Your task to perform on an android device: Open battery settings Image 0: 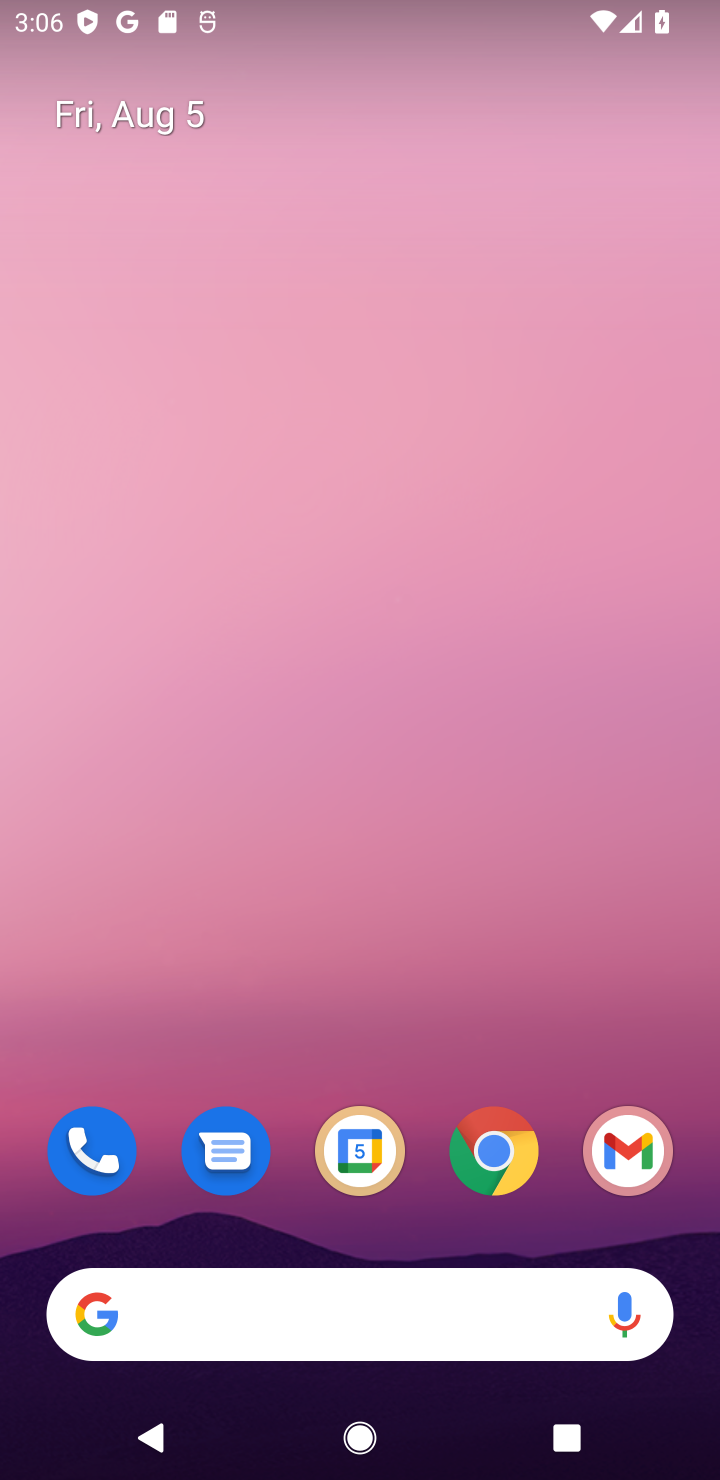
Step 0: drag from (387, 1048) to (343, 5)
Your task to perform on an android device: Open battery settings Image 1: 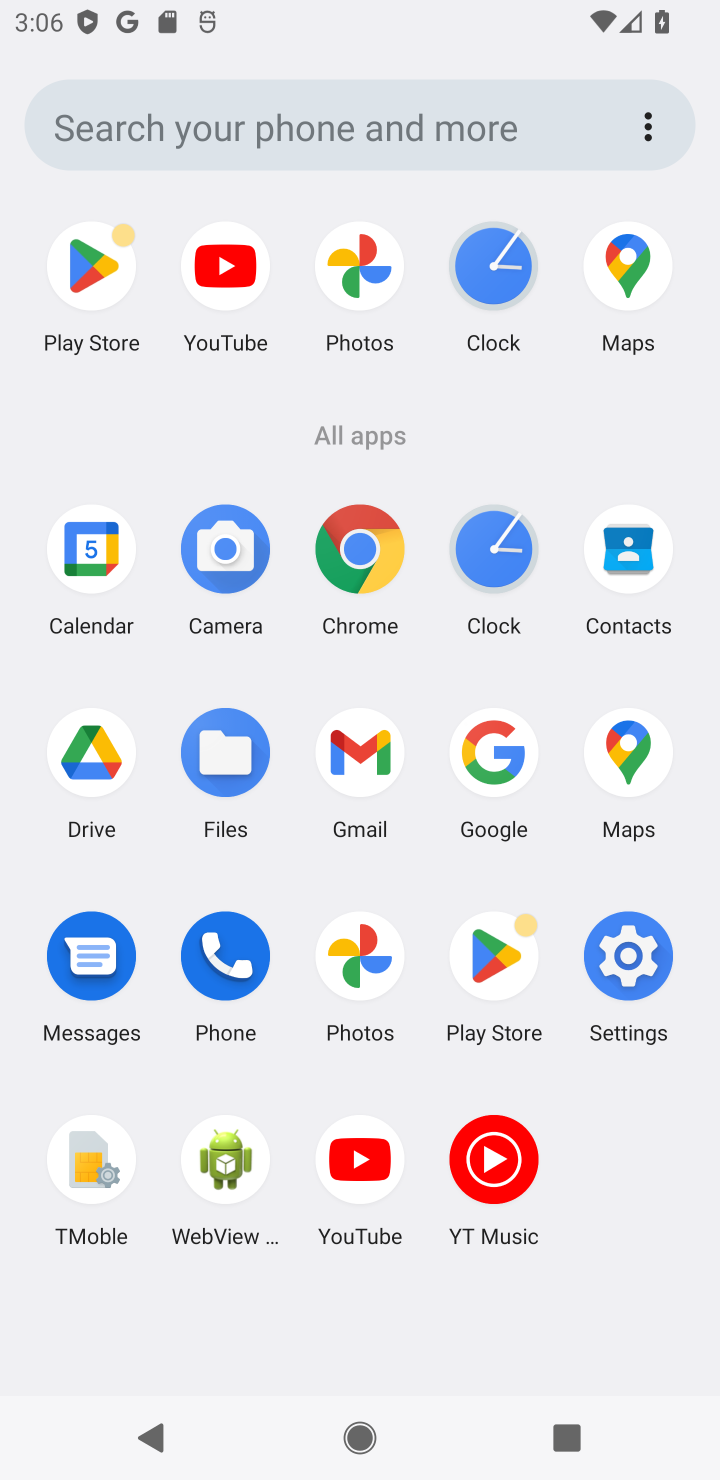
Step 1: click (626, 931)
Your task to perform on an android device: Open battery settings Image 2: 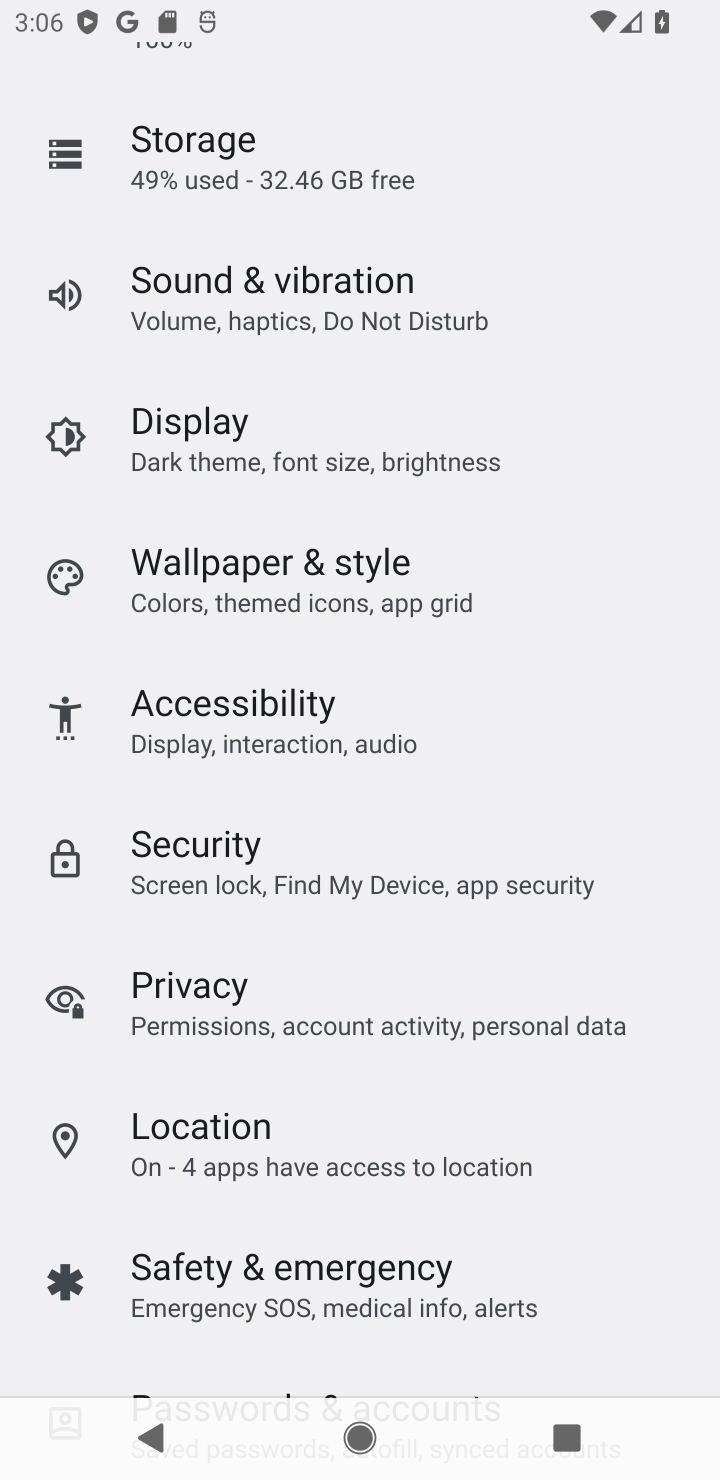
Step 2: drag from (351, 288) to (389, 991)
Your task to perform on an android device: Open battery settings Image 3: 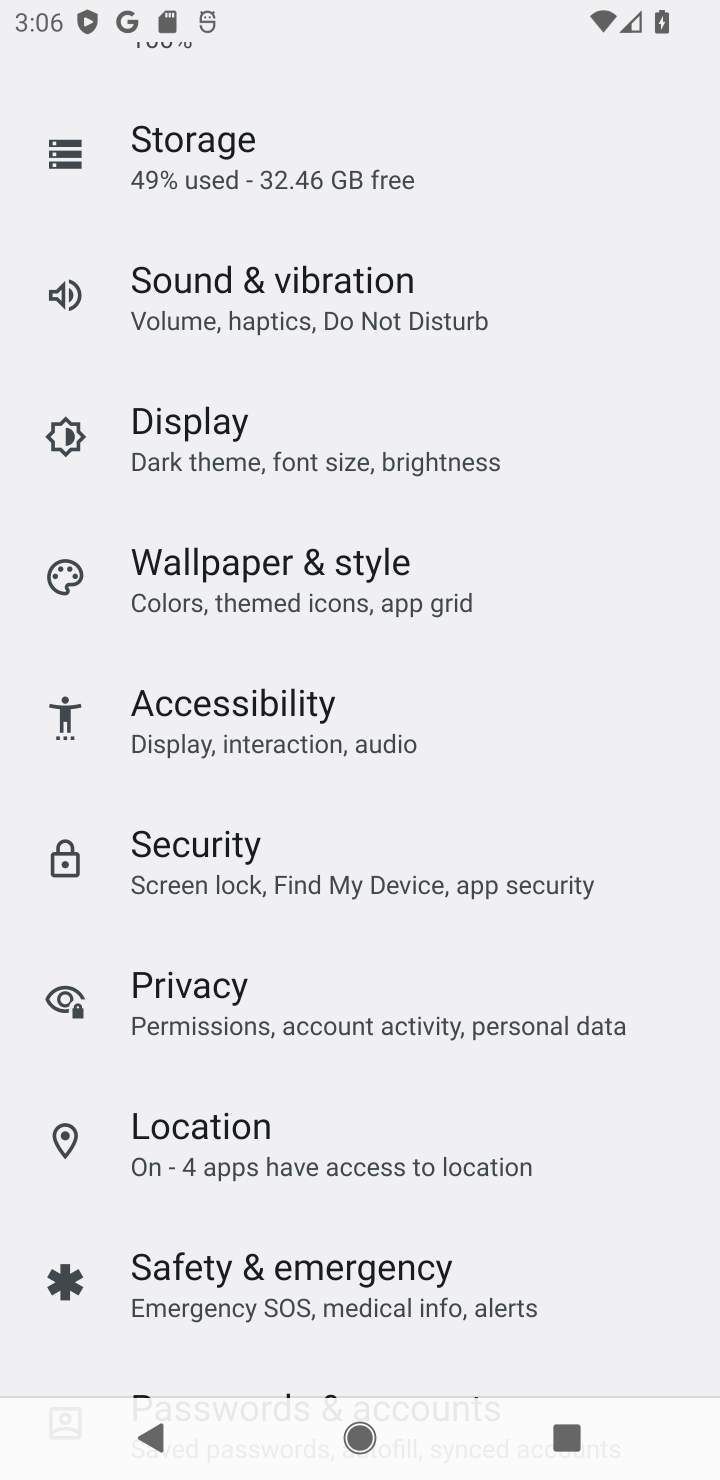
Step 3: drag from (412, 226) to (412, 761)
Your task to perform on an android device: Open battery settings Image 4: 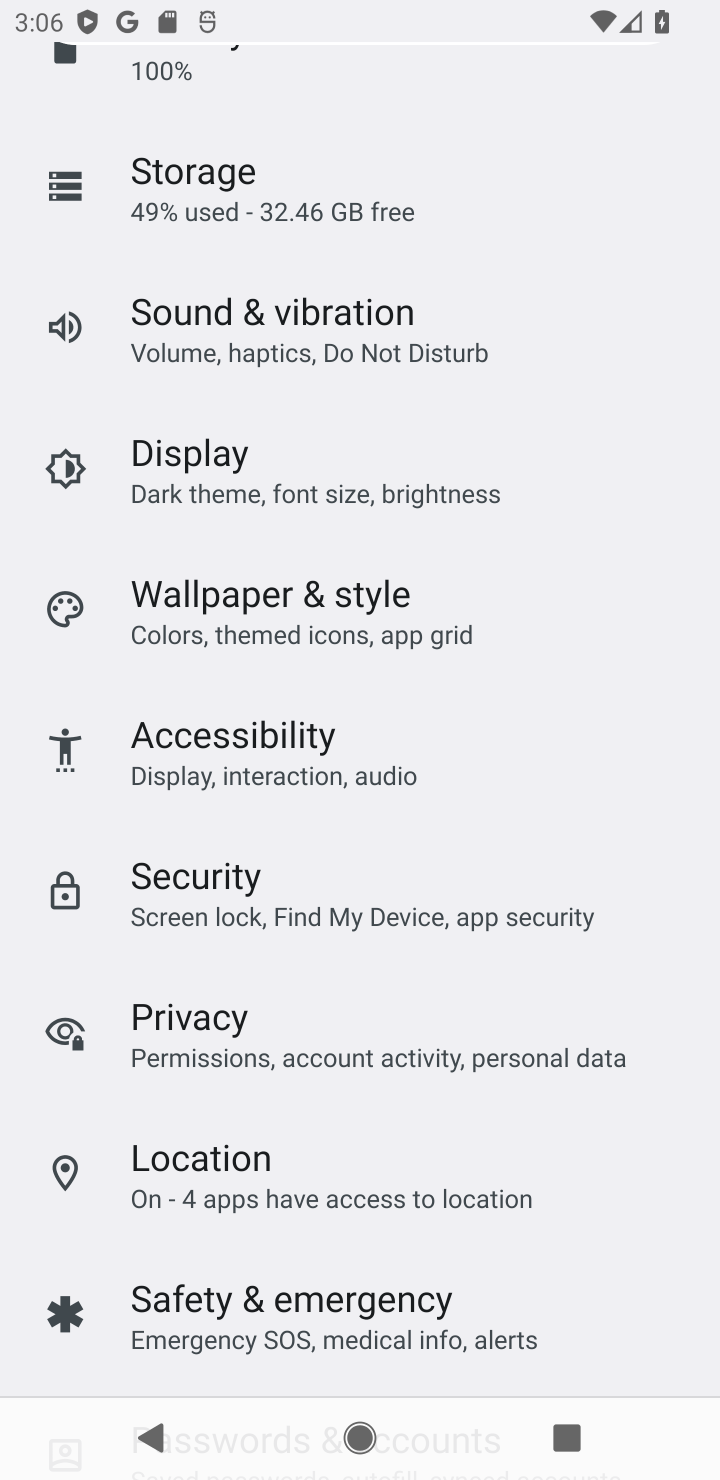
Step 4: drag from (312, 196) to (336, 841)
Your task to perform on an android device: Open battery settings Image 5: 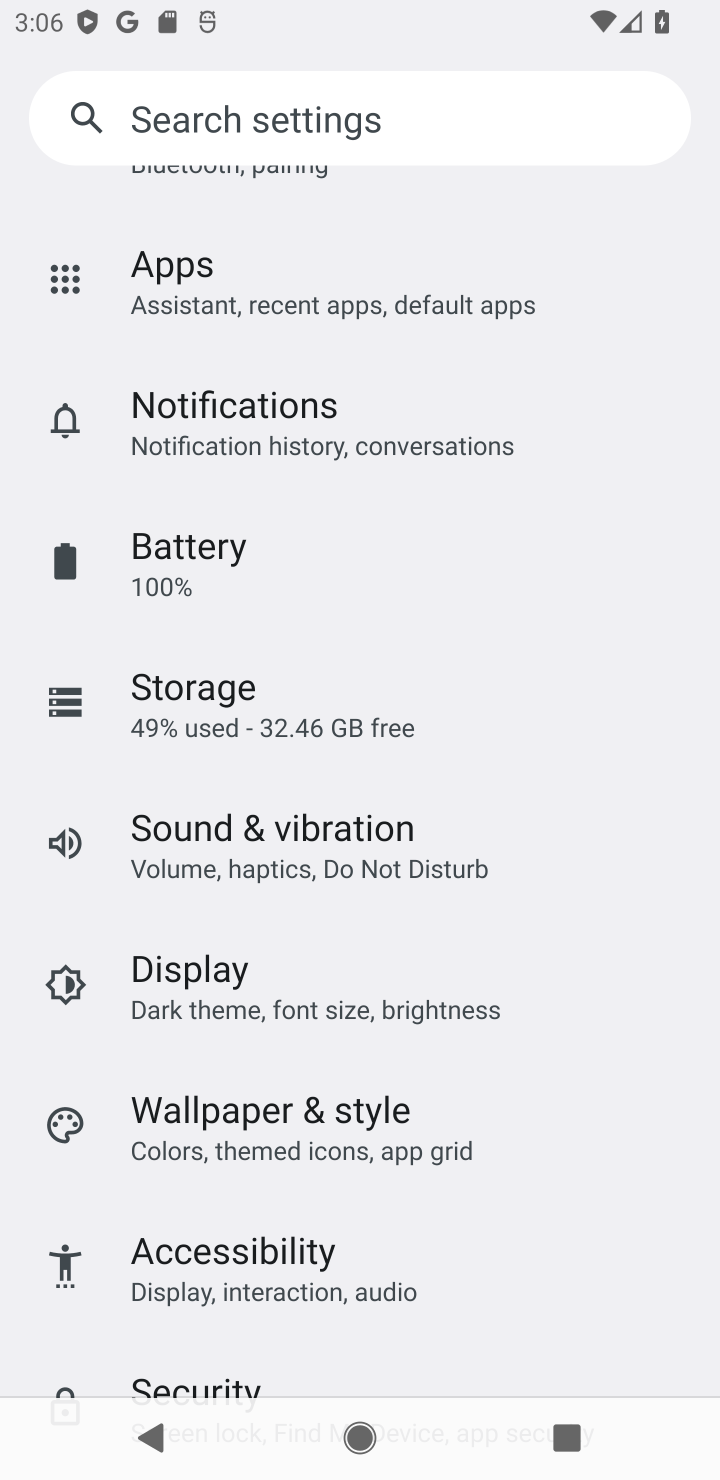
Step 5: click (278, 532)
Your task to perform on an android device: Open battery settings Image 6: 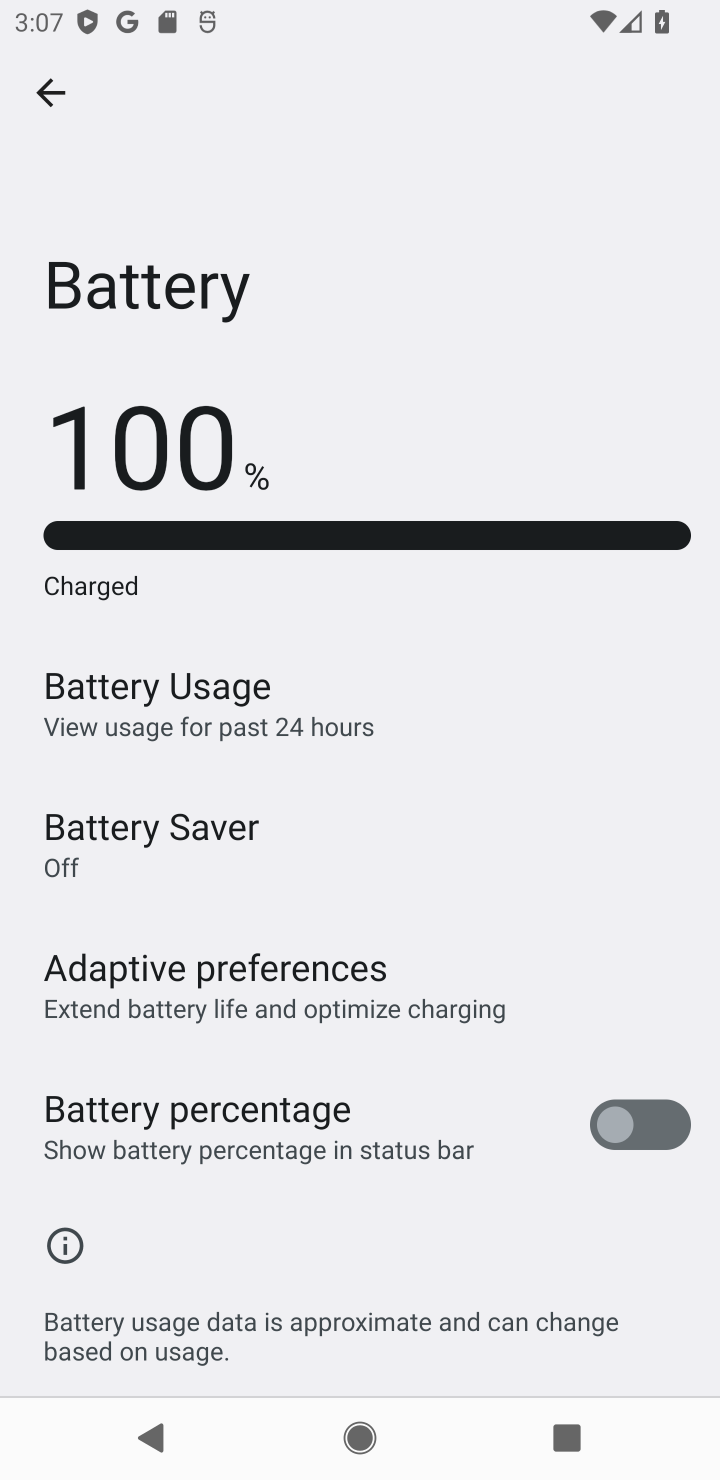
Step 6: task complete